Your task to perform on an android device: Go to CNN.com Image 0: 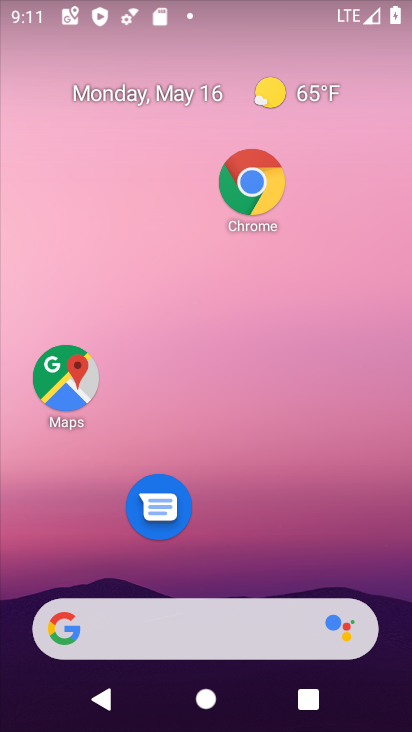
Step 0: drag from (206, 598) to (136, 54)
Your task to perform on an android device: Go to CNN.com Image 1: 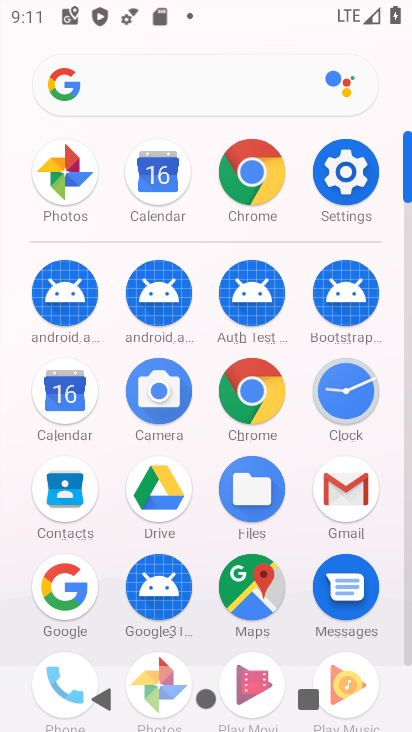
Step 1: click (245, 402)
Your task to perform on an android device: Go to CNN.com Image 2: 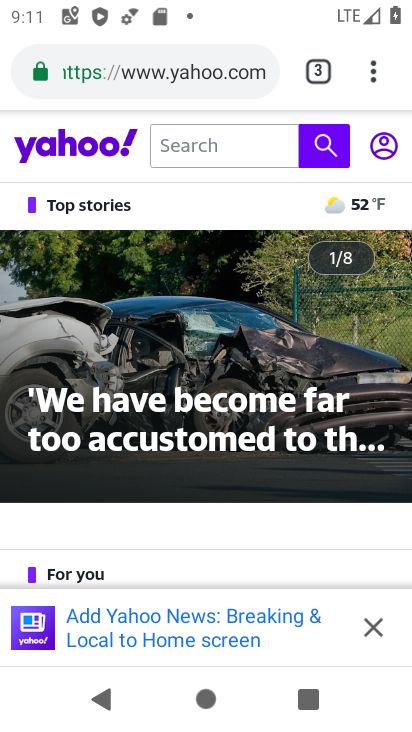
Step 2: click (326, 72)
Your task to perform on an android device: Go to CNN.com Image 3: 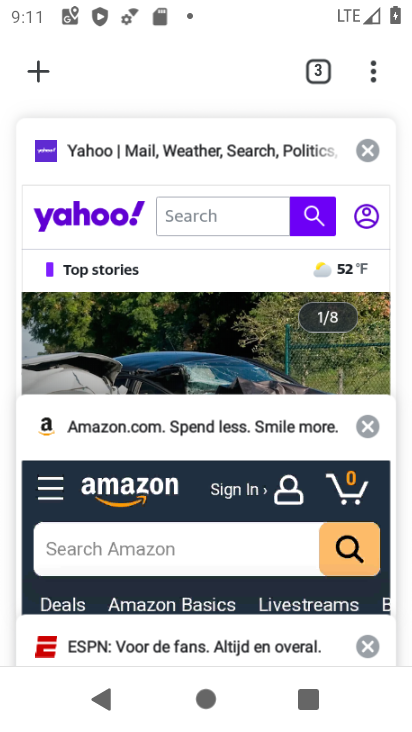
Step 3: click (46, 69)
Your task to perform on an android device: Go to CNN.com Image 4: 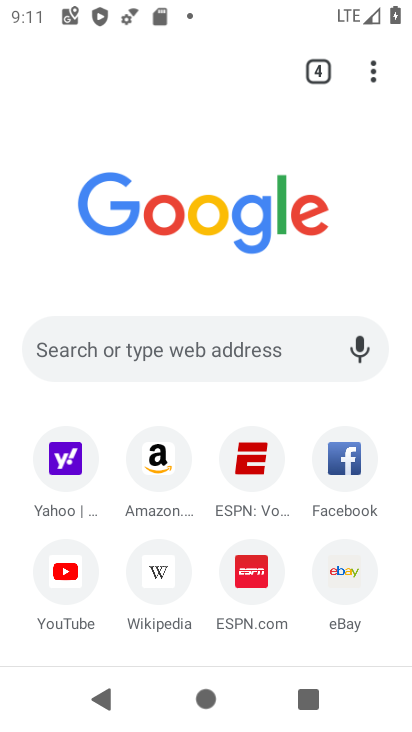
Step 4: click (180, 343)
Your task to perform on an android device: Go to CNN.com Image 5: 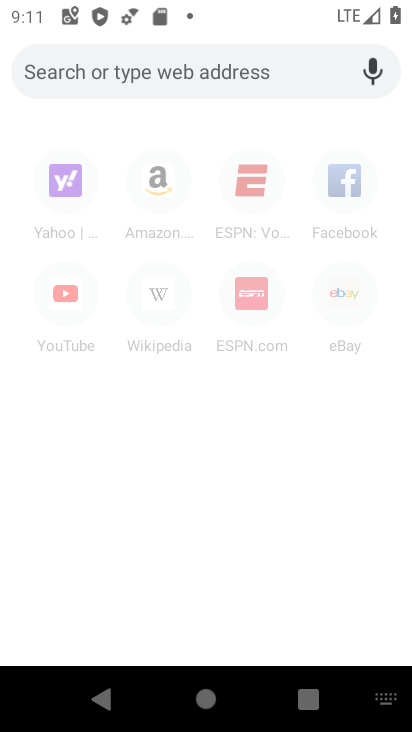
Step 5: type "cnn"
Your task to perform on an android device: Go to CNN.com Image 6: 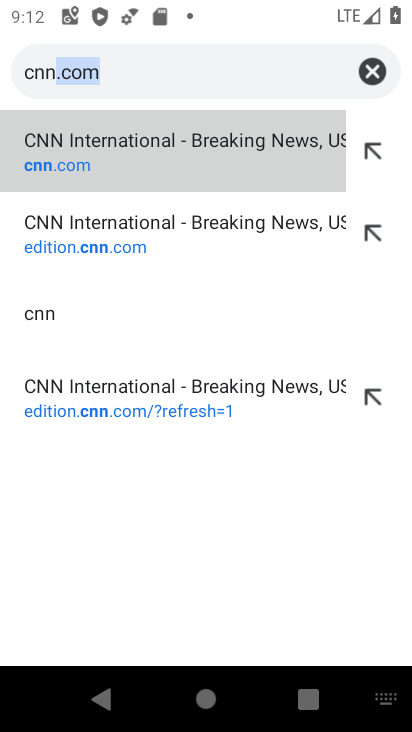
Step 6: click (102, 148)
Your task to perform on an android device: Go to CNN.com Image 7: 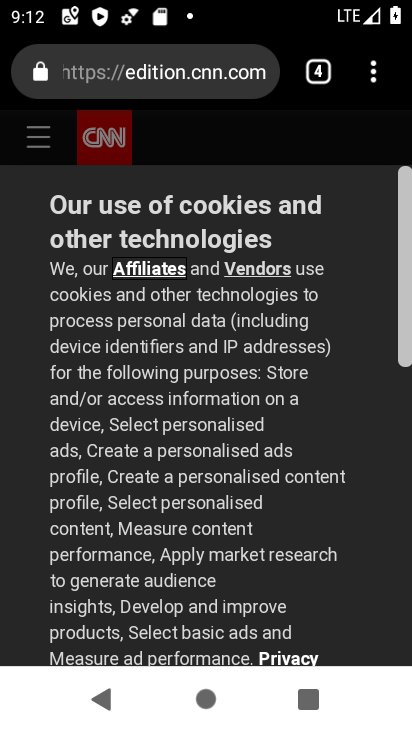
Step 7: task complete